Your task to perform on an android device: check the backup settings in the google photos Image 0: 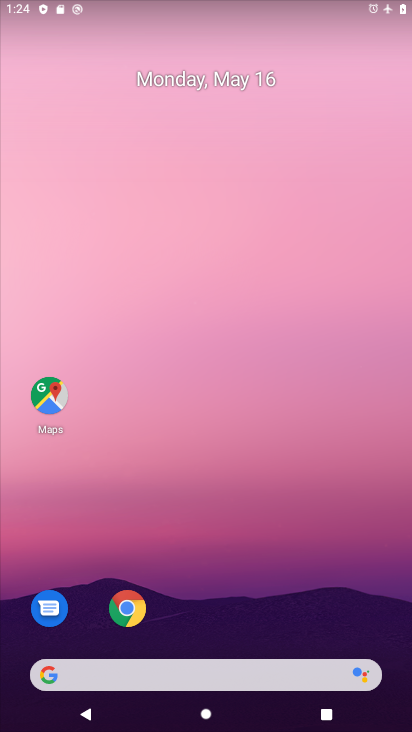
Step 0: drag from (241, 618) to (281, 140)
Your task to perform on an android device: check the backup settings in the google photos Image 1: 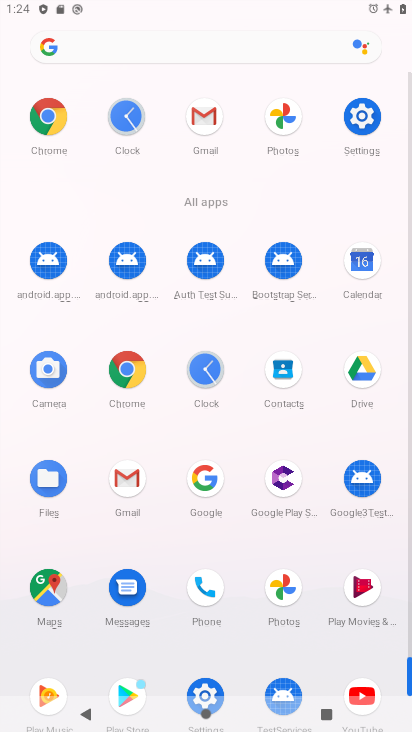
Step 1: click (272, 135)
Your task to perform on an android device: check the backup settings in the google photos Image 2: 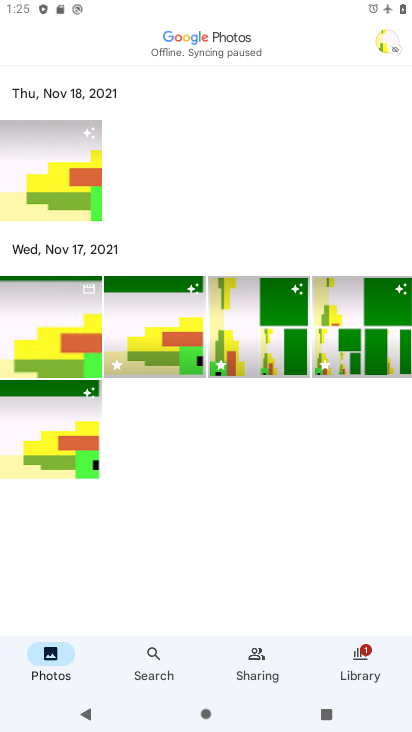
Step 2: click (360, 670)
Your task to perform on an android device: check the backup settings in the google photos Image 3: 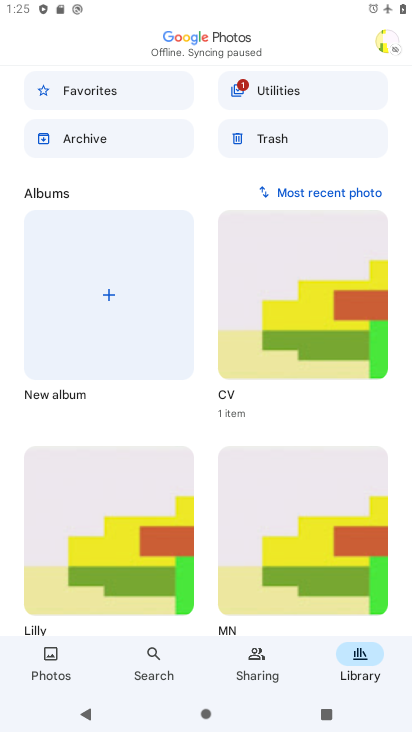
Step 3: click (399, 29)
Your task to perform on an android device: check the backup settings in the google photos Image 4: 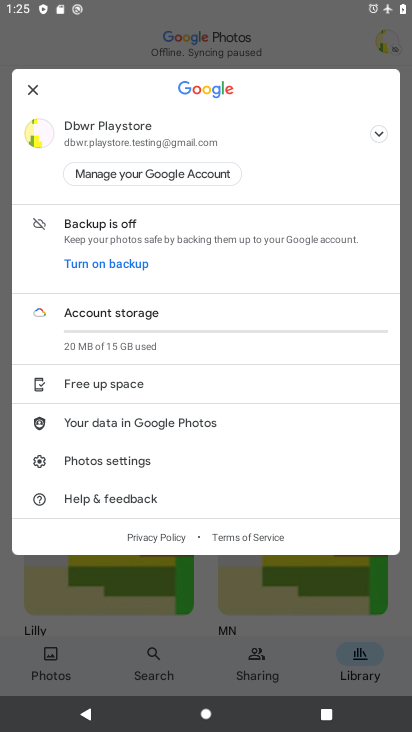
Step 4: click (175, 246)
Your task to perform on an android device: check the backup settings in the google photos Image 5: 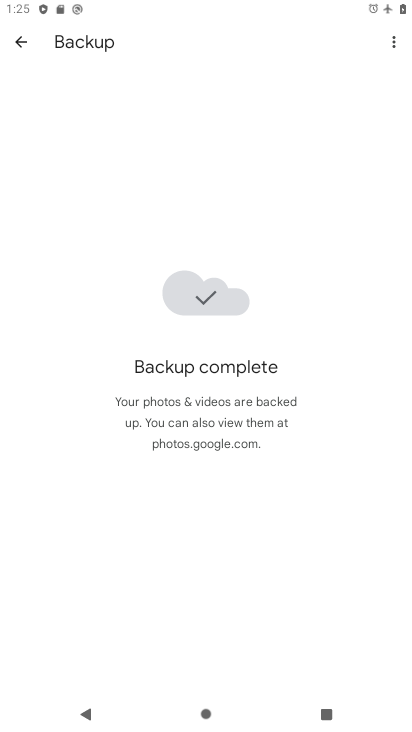
Step 5: task complete